Your task to perform on an android device: turn smart compose on in the gmail app Image 0: 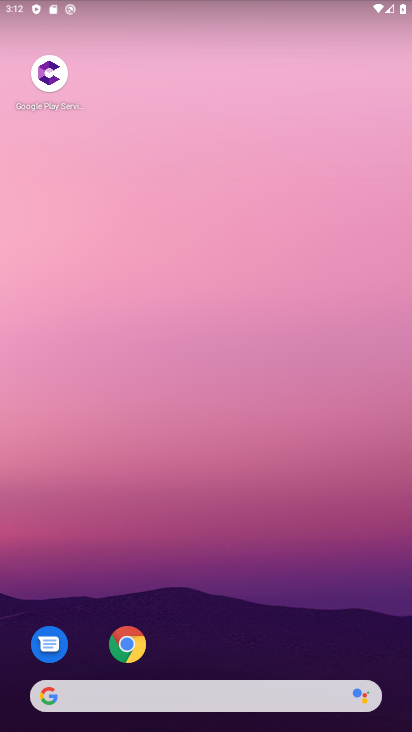
Step 0: drag from (315, 563) to (310, 4)
Your task to perform on an android device: turn smart compose on in the gmail app Image 1: 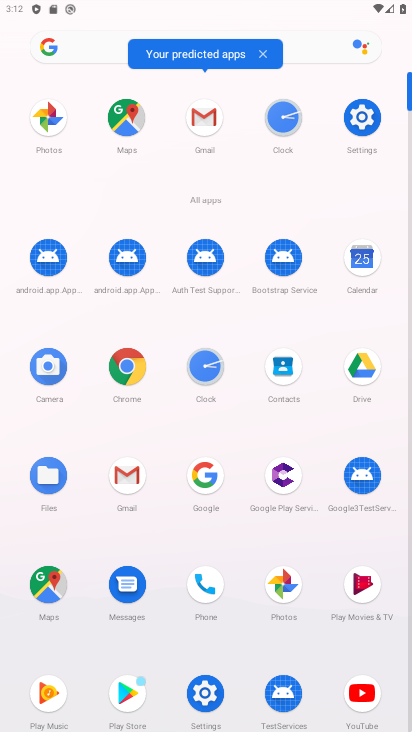
Step 1: click (202, 123)
Your task to perform on an android device: turn smart compose on in the gmail app Image 2: 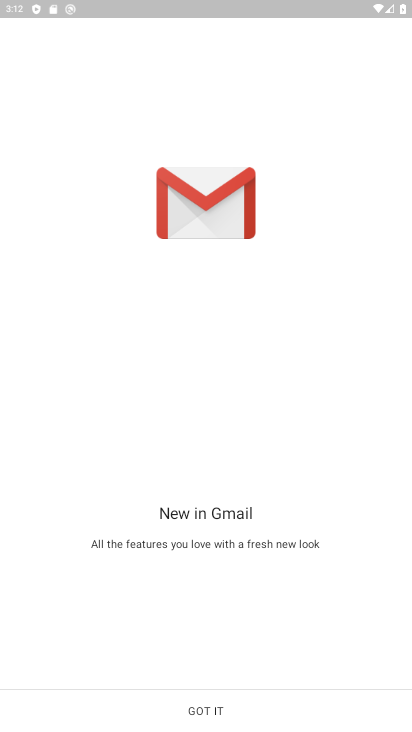
Step 2: click (192, 706)
Your task to perform on an android device: turn smart compose on in the gmail app Image 3: 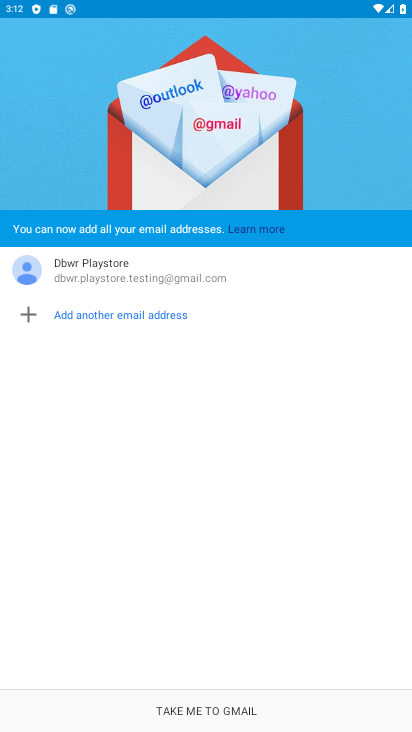
Step 3: click (192, 706)
Your task to perform on an android device: turn smart compose on in the gmail app Image 4: 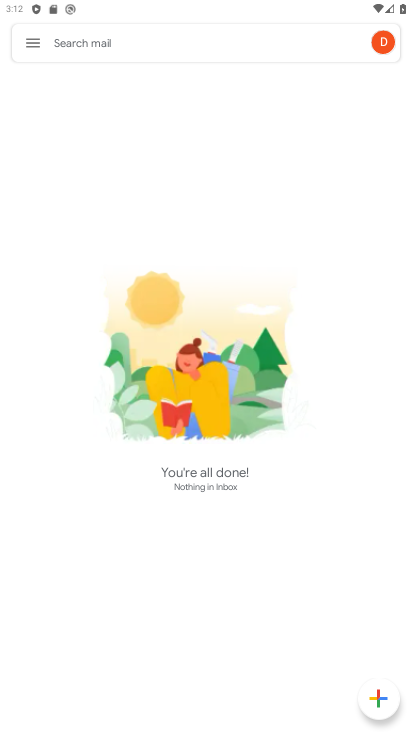
Step 4: click (30, 40)
Your task to perform on an android device: turn smart compose on in the gmail app Image 5: 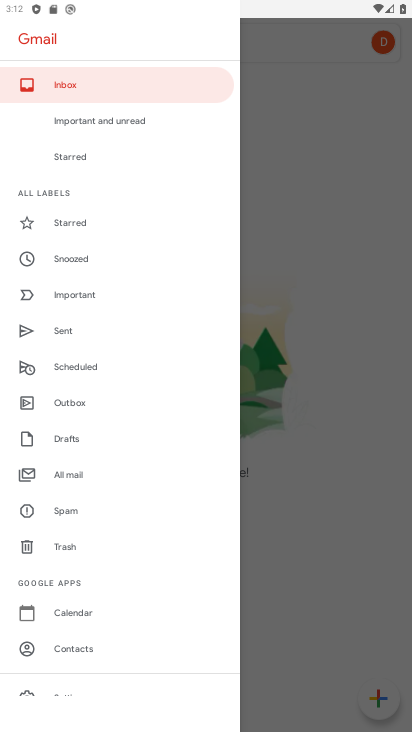
Step 5: drag from (139, 631) to (131, 444)
Your task to perform on an android device: turn smart compose on in the gmail app Image 6: 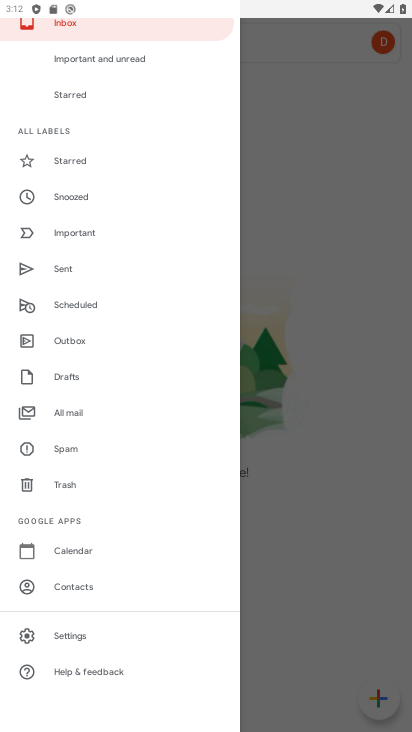
Step 6: click (64, 635)
Your task to perform on an android device: turn smart compose on in the gmail app Image 7: 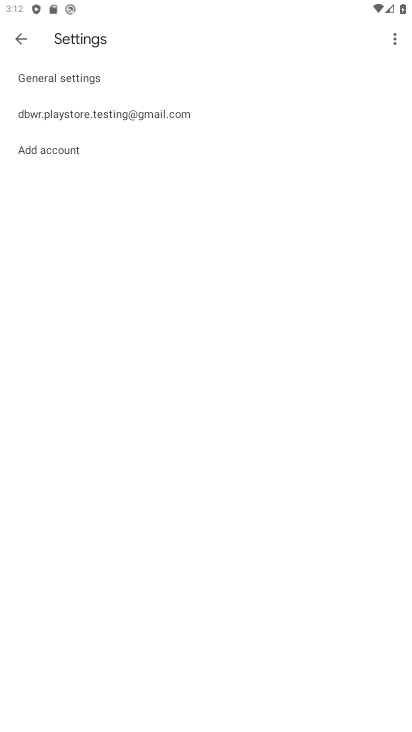
Step 7: click (78, 119)
Your task to perform on an android device: turn smart compose on in the gmail app Image 8: 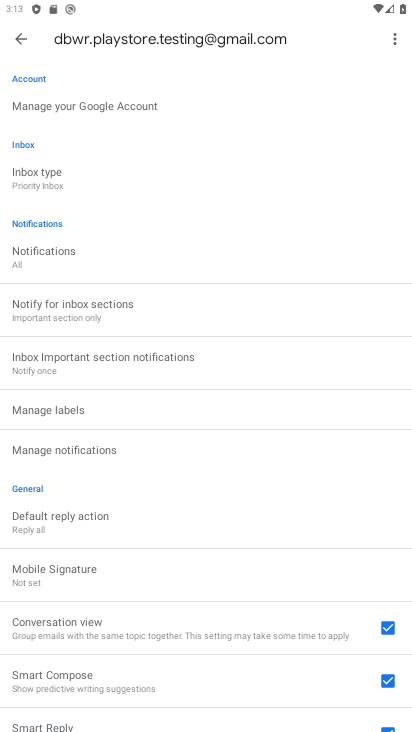
Step 8: task complete